Your task to perform on an android device: toggle data saver in the chrome app Image 0: 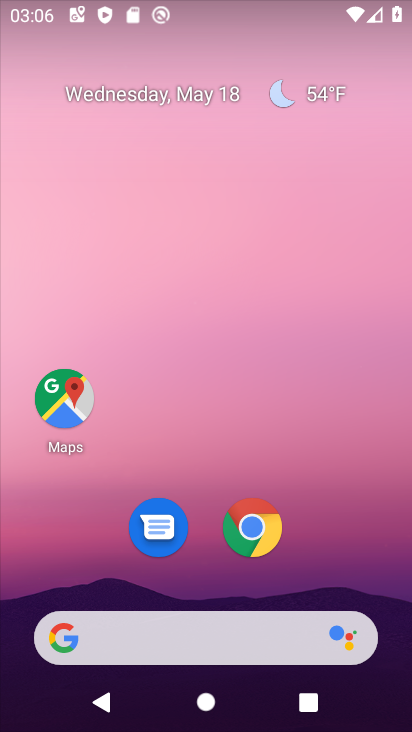
Step 0: drag from (228, 592) to (283, 29)
Your task to perform on an android device: toggle data saver in the chrome app Image 1: 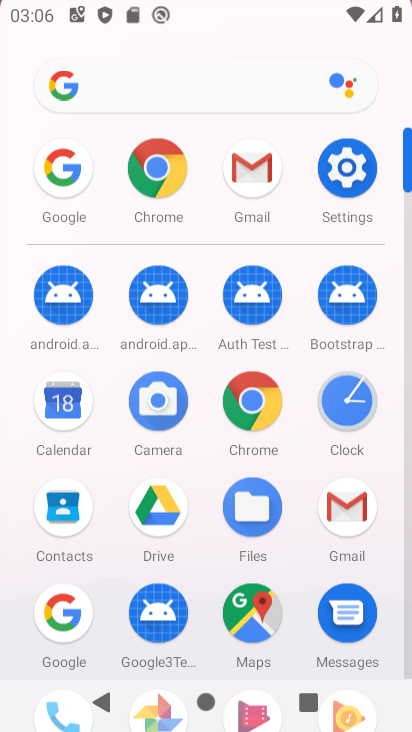
Step 1: click (254, 409)
Your task to perform on an android device: toggle data saver in the chrome app Image 2: 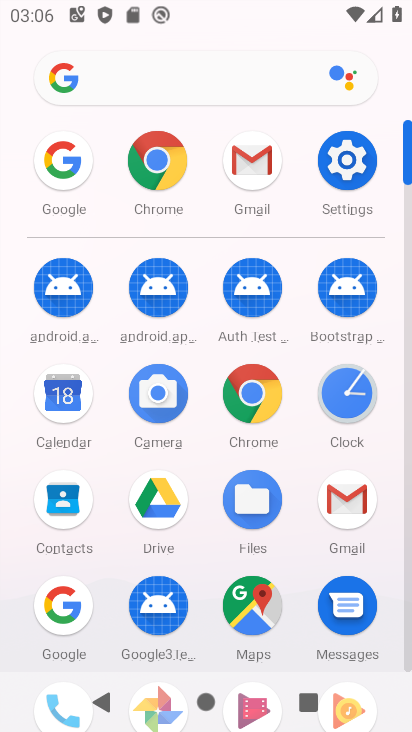
Step 2: click (248, 393)
Your task to perform on an android device: toggle data saver in the chrome app Image 3: 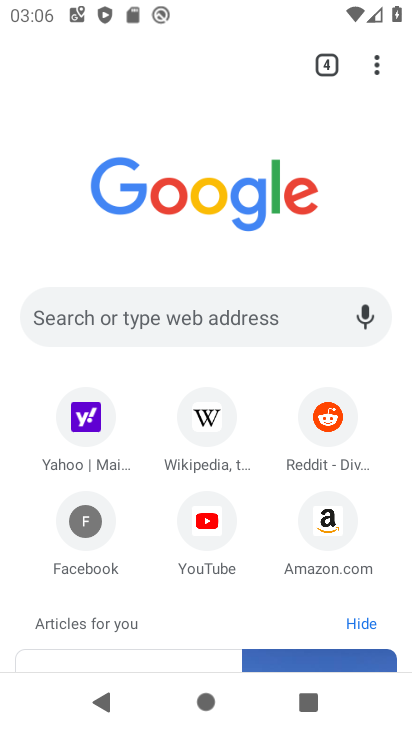
Step 3: click (370, 63)
Your task to perform on an android device: toggle data saver in the chrome app Image 4: 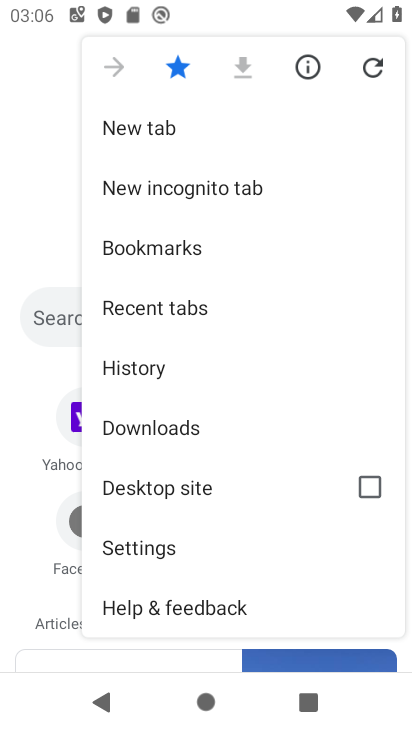
Step 4: click (140, 548)
Your task to perform on an android device: toggle data saver in the chrome app Image 5: 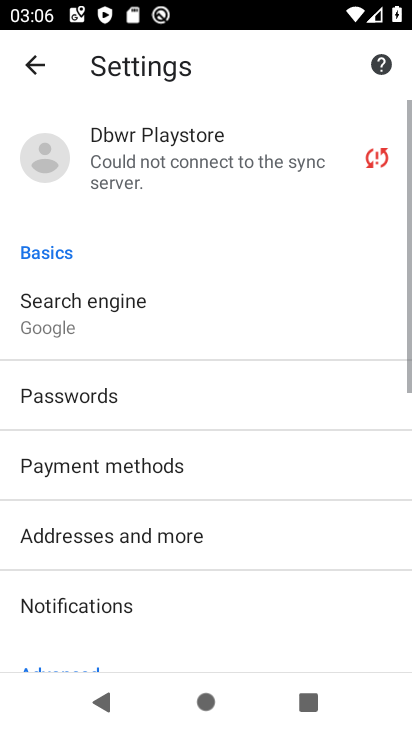
Step 5: drag from (163, 600) to (171, 60)
Your task to perform on an android device: toggle data saver in the chrome app Image 6: 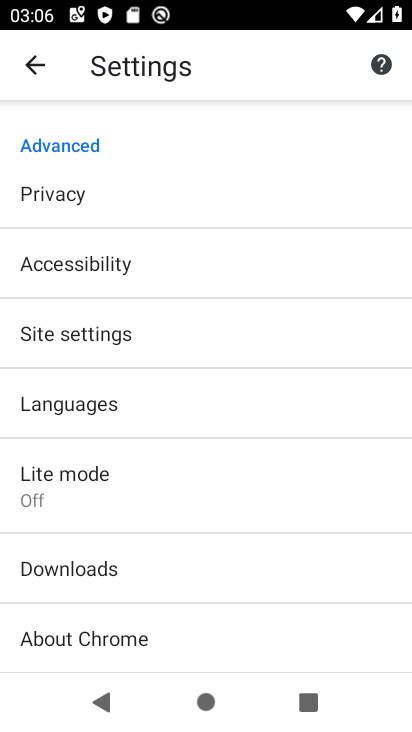
Step 6: click (100, 507)
Your task to perform on an android device: toggle data saver in the chrome app Image 7: 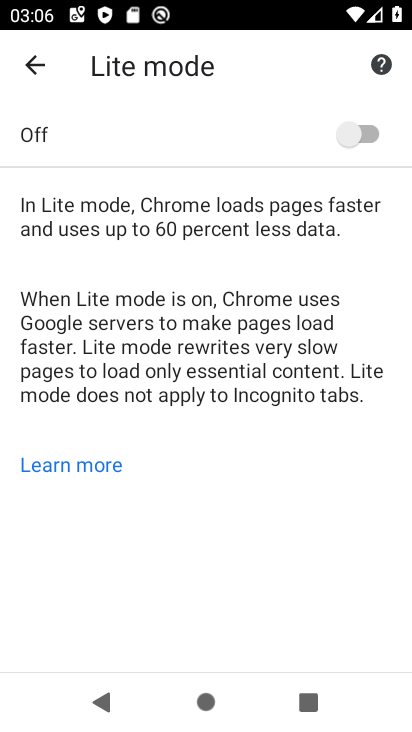
Step 7: click (360, 142)
Your task to perform on an android device: toggle data saver in the chrome app Image 8: 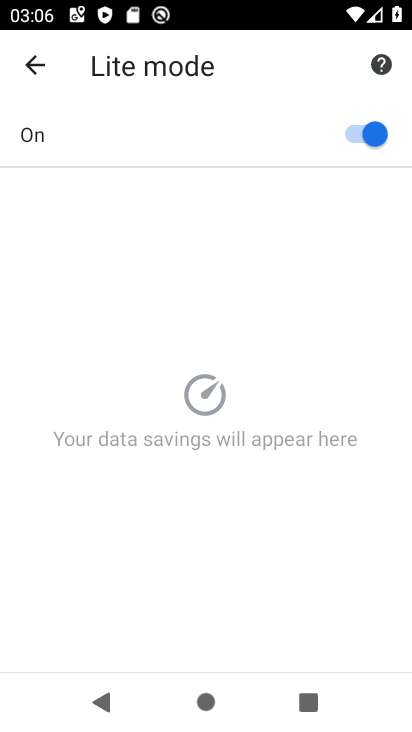
Step 8: task complete